Your task to perform on an android device: Go to Android settings Image 0: 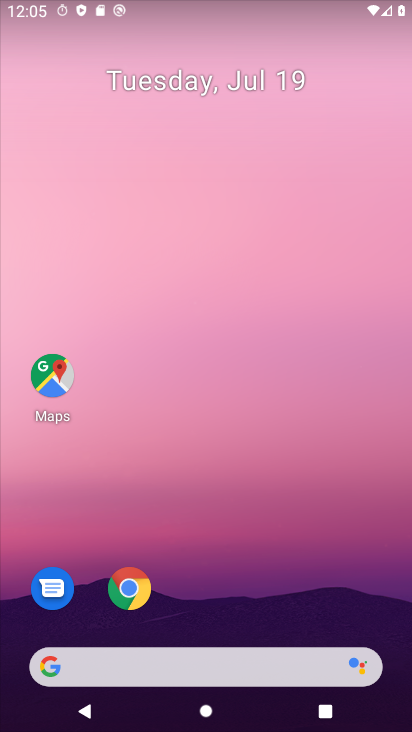
Step 0: drag from (262, 669) to (197, 272)
Your task to perform on an android device: Go to Android settings Image 1: 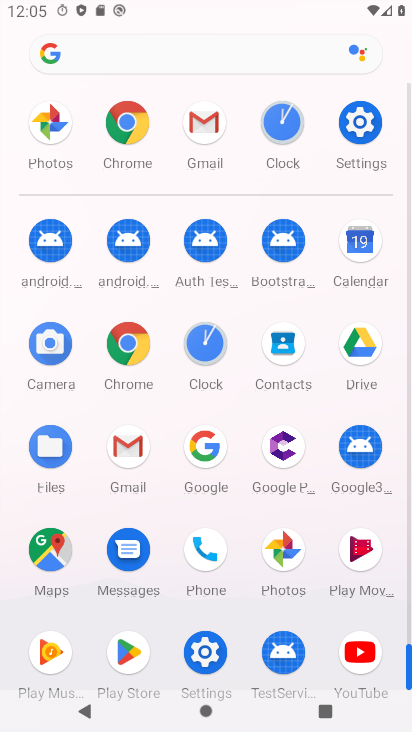
Step 1: click (352, 119)
Your task to perform on an android device: Go to Android settings Image 2: 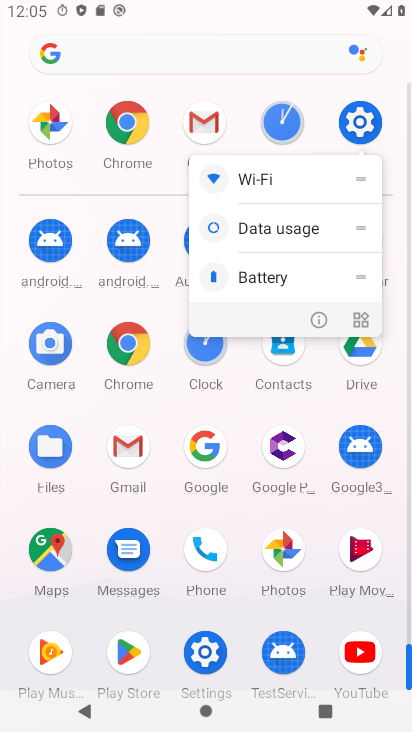
Step 2: click (357, 121)
Your task to perform on an android device: Go to Android settings Image 3: 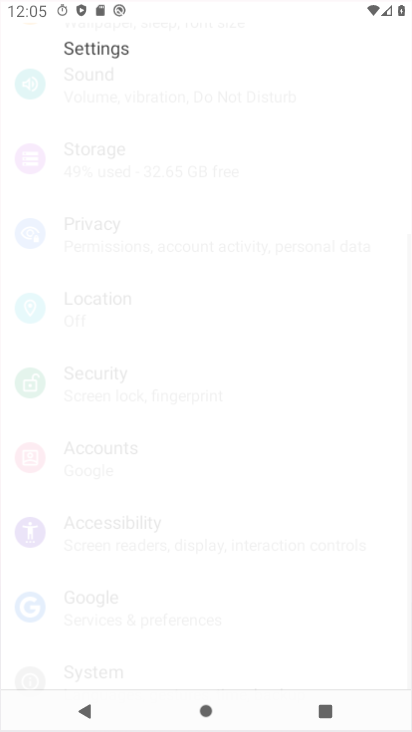
Step 3: click (353, 121)
Your task to perform on an android device: Go to Android settings Image 4: 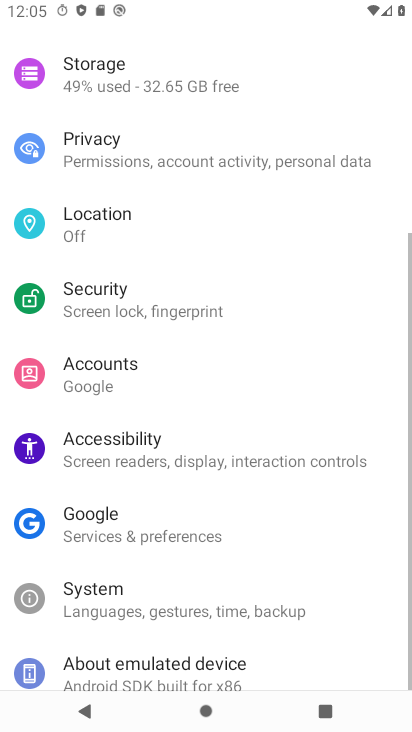
Step 4: click (353, 121)
Your task to perform on an android device: Go to Android settings Image 5: 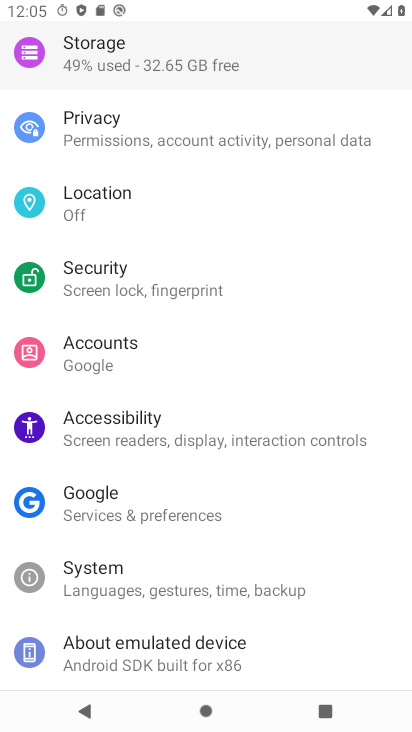
Step 5: click (353, 121)
Your task to perform on an android device: Go to Android settings Image 6: 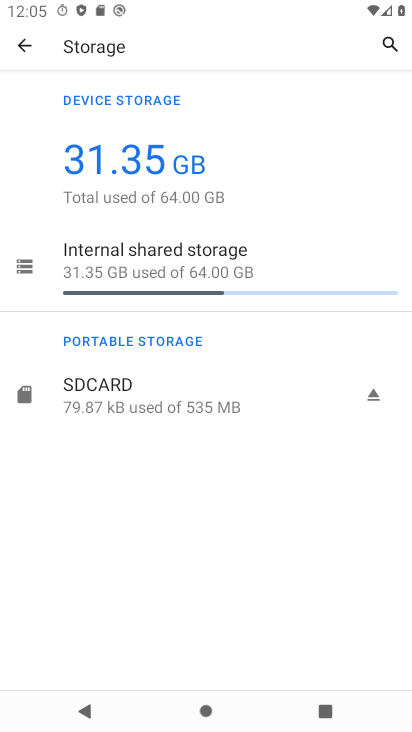
Step 6: click (20, 27)
Your task to perform on an android device: Go to Android settings Image 7: 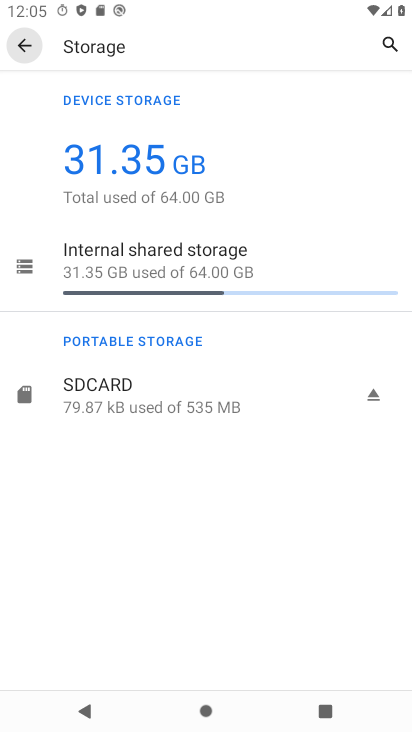
Step 7: click (21, 40)
Your task to perform on an android device: Go to Android settings Image 8: 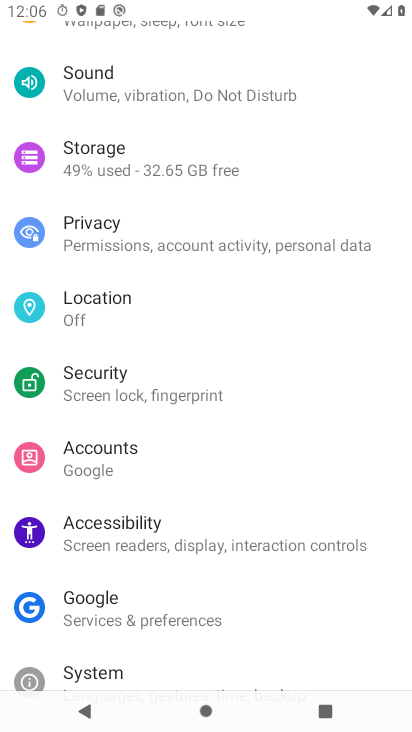
Step 8: drag from (126, 138) to (135, 503)
Your task to perform on an android device: Go to Android settings Image 9: 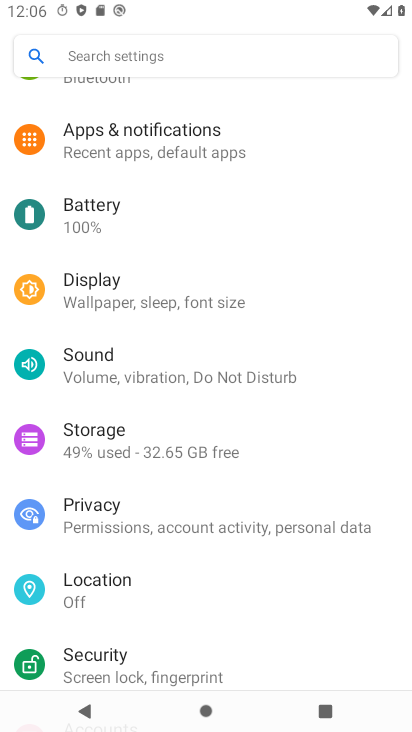
Step 9: drag from (111, 534) to (114, 168)
Your task to perform on an android device: Go to Android settings Image 10: 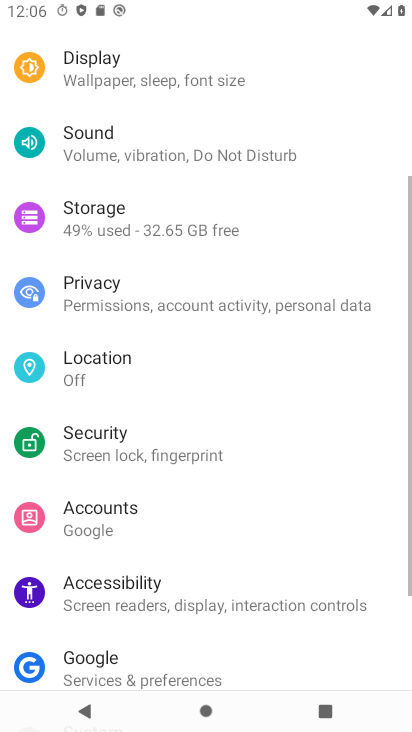
Step 10: drag from (123, 536) to (119, 250)
Your task to perform on an android device: Go to Android settings Image 11: 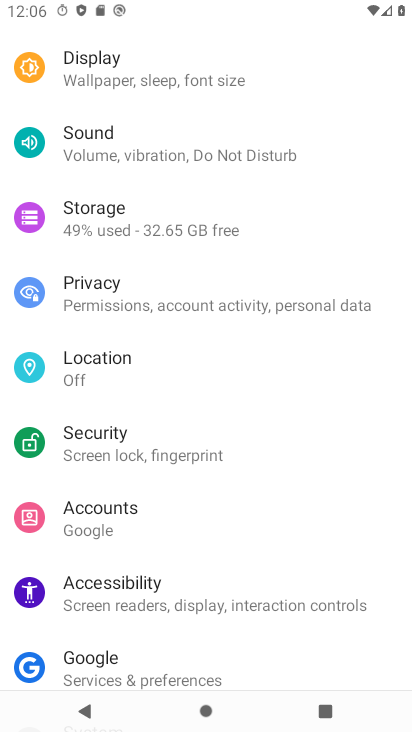
Step 11: click (130, 278)
Your task to perform on an android device: Go to Android settings Image 12: 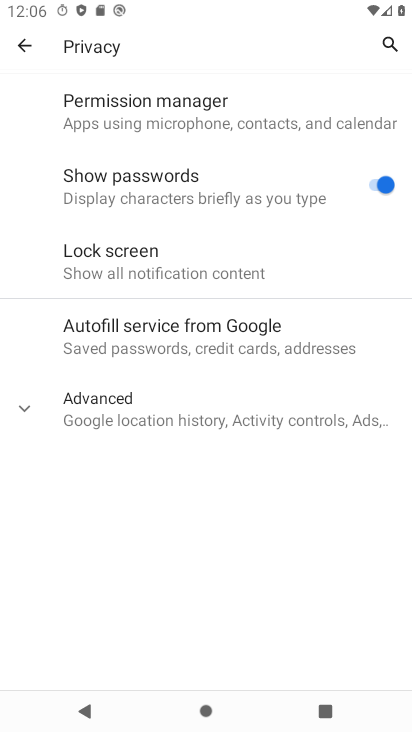
Step 12: click (16, 49)
Your task to perform on an android device: Go to Android settings Image 13: 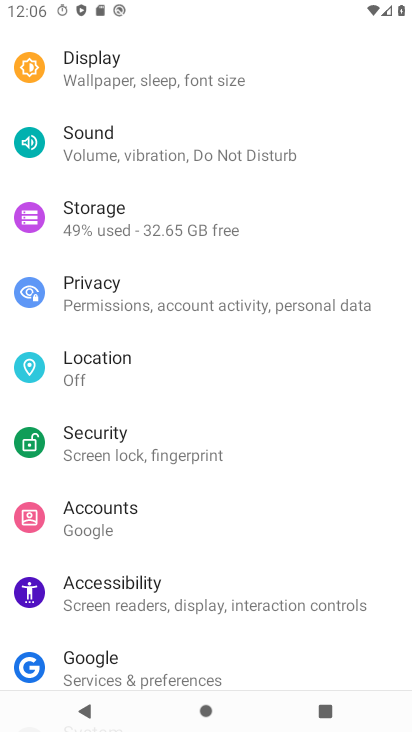
Step 13: drag from (144, 571) to (132, 224)
Your task to perform on an android device: Go to Android settings Image 14: 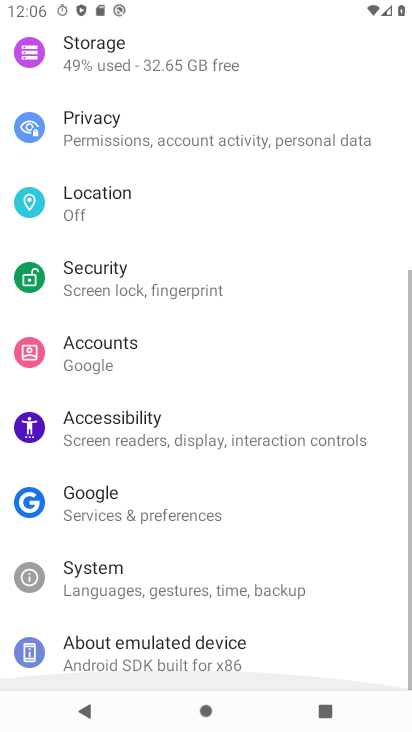
Step 14: drag from (138, 434) to (119, 184)
Your task to perform on an android device: Go to Android settings Image 15: 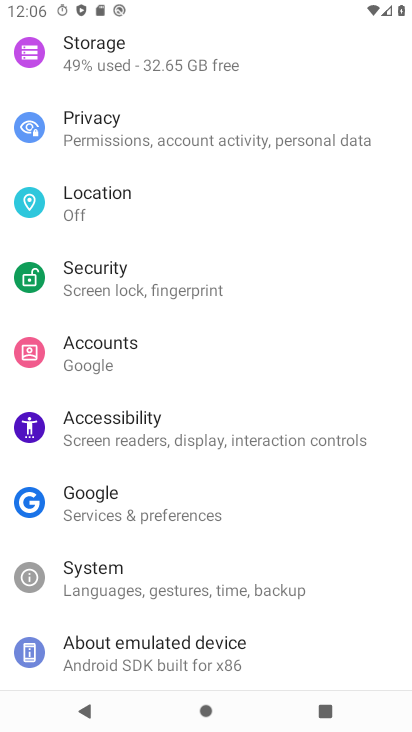
Step 15: click (144, 641)
Your task to perform on an android device: Go to Android settings Image 16: 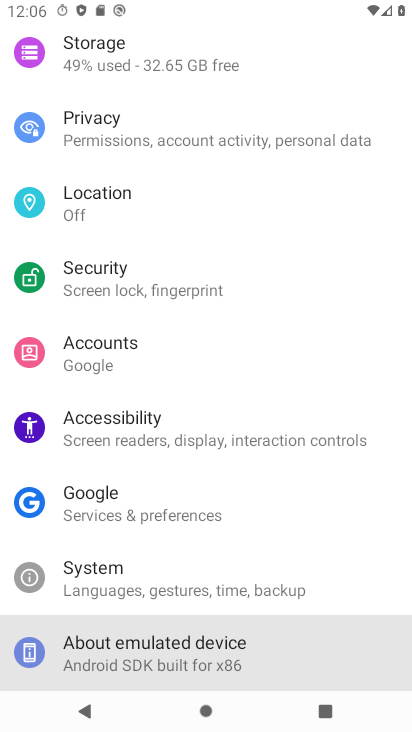
Step 16: task complete